Your task to perform on an android device: Clear the shopping cart on costco.com. Image 0: 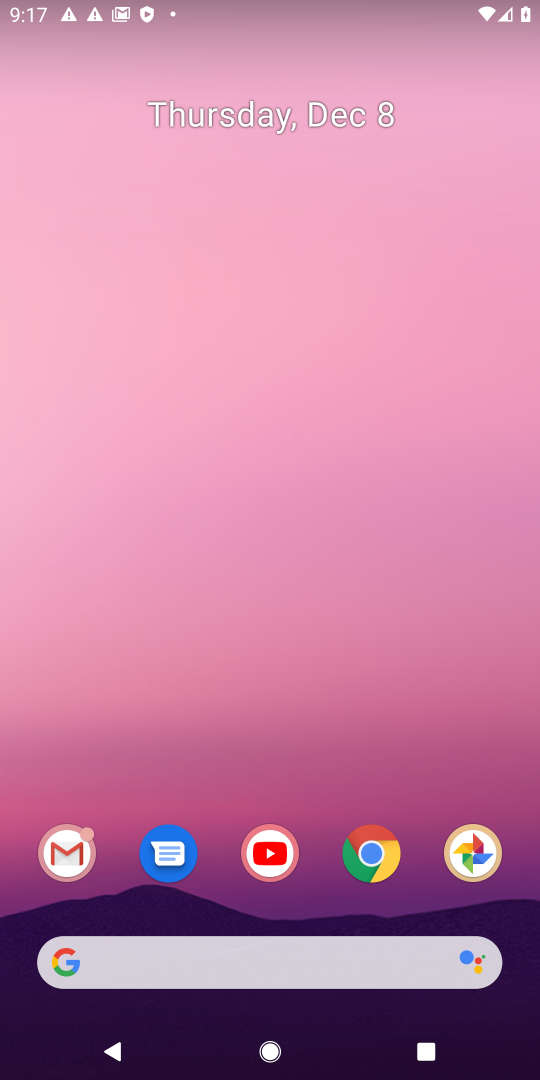
Step 0: click (282, 957)
Your task to perform on an android device: Clear the shopping cart on costco.com. Image 1: 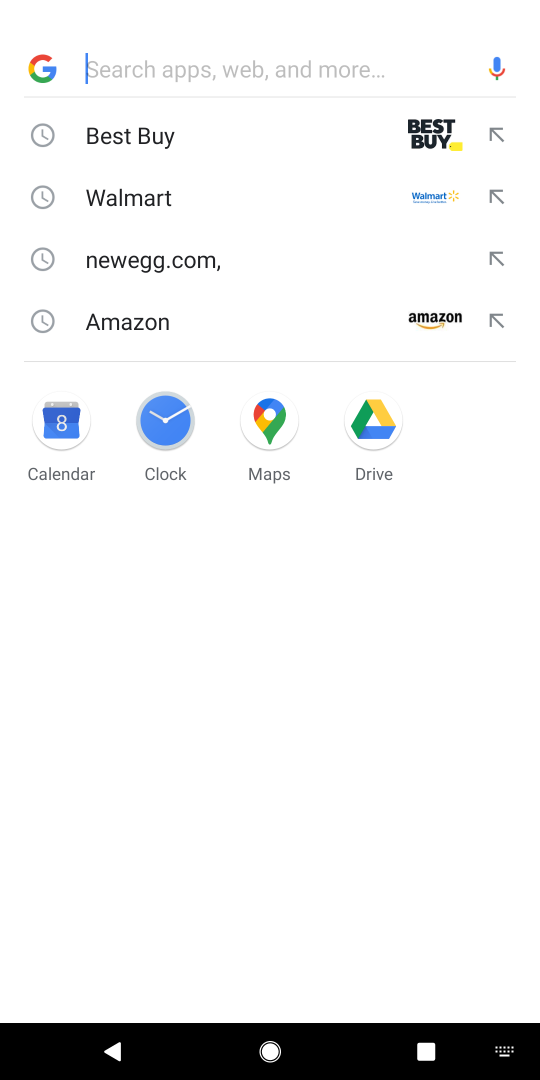
Step 1: type "costco.c"
Your task to perform on an android device: Clear the shopping cart on costco.com. Image 2: 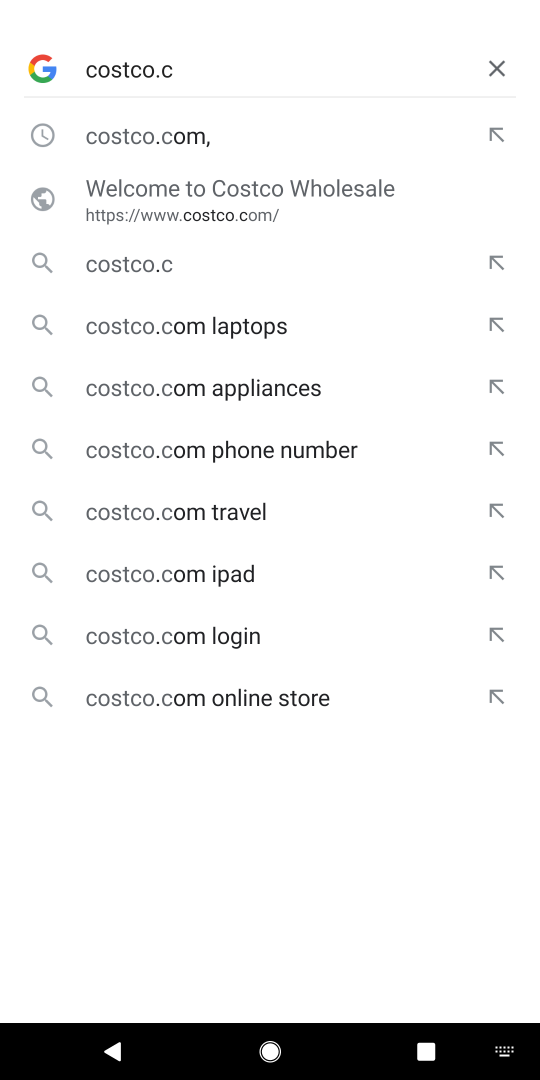
Step 2: click (132, 126)
Your task to perform on an android device: Clear the shopping cart on costco.com. Image 3: 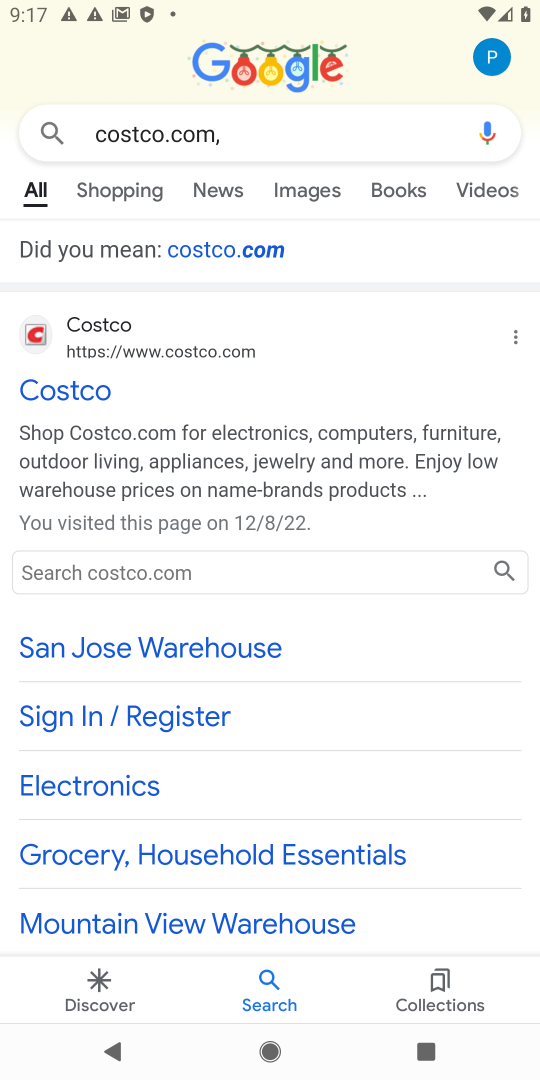
Step 3: click (67, 387)
Your task to perform on an android device: Clear the shopping cart on costco.com. Image 4: 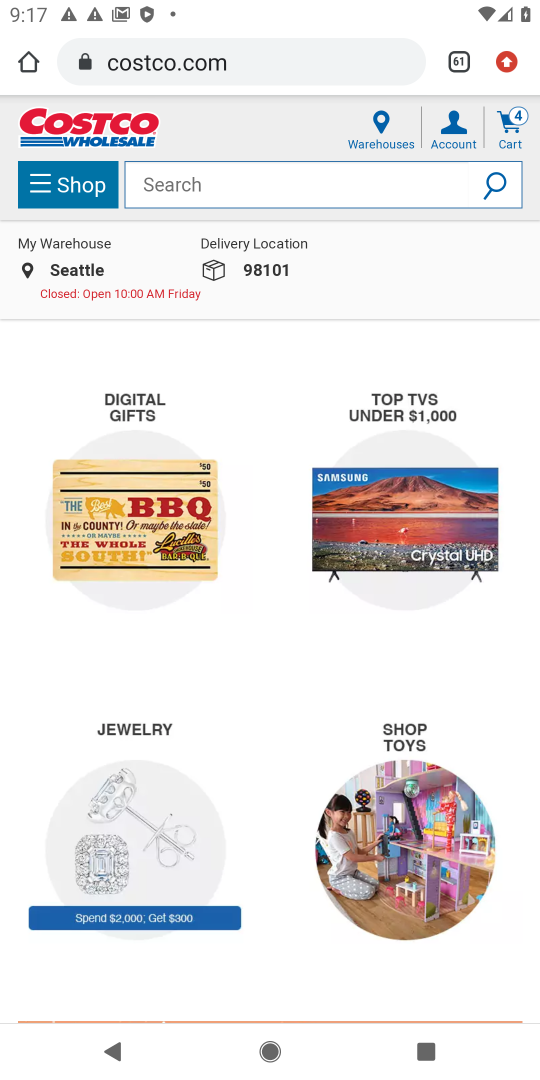
Step 4: click (507, 119)
Your task to perform on an android device: Clear the shopping cart on costco.com. Image 5: 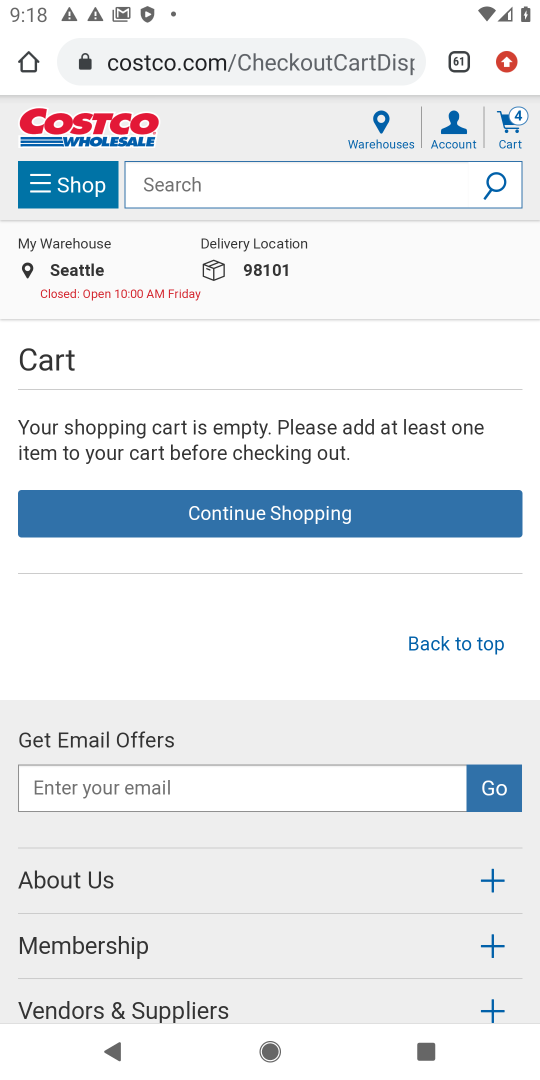
Step 5: task complete